Your task to perform on an android device: What's the news in theFalkland Islands? Image 0: 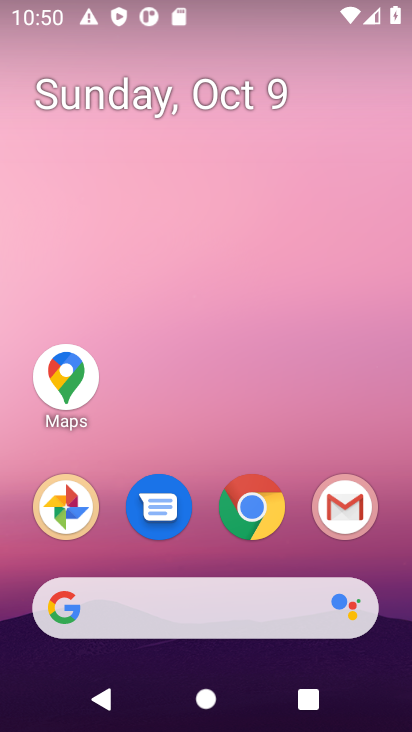
Step 0: press home button
Your task to perform on an android device: What's the news in theFalkland Islands? Image 1: 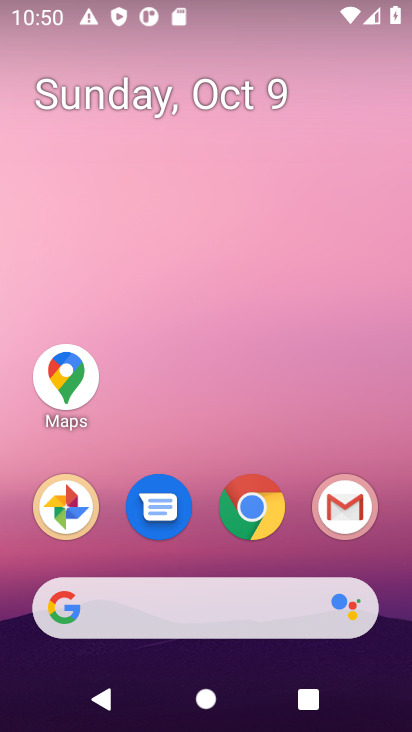
Step 1: click (243, 606)
Your task to perform on an android device: What's the news in theFalkland Islands? Image 2: 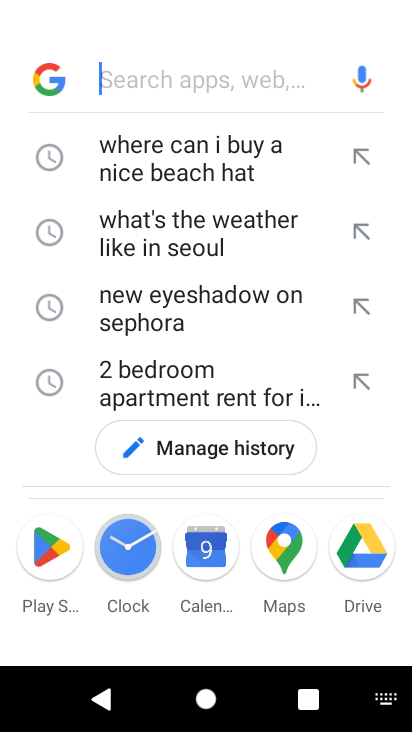
Step 2: press enter
Your task to perform on an android device: What's the news in theFalkland Islands? Image 3: 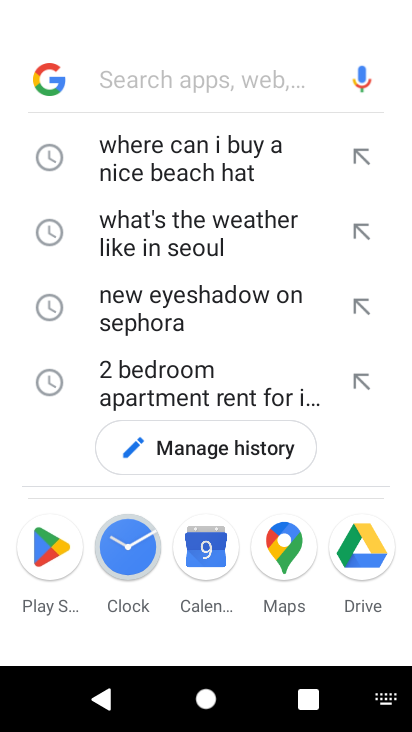
Step 3: type "What's the news in theFalkland Islands"
Your task to perform on an android device: What's the news in theFalkland Islands? Image 4: 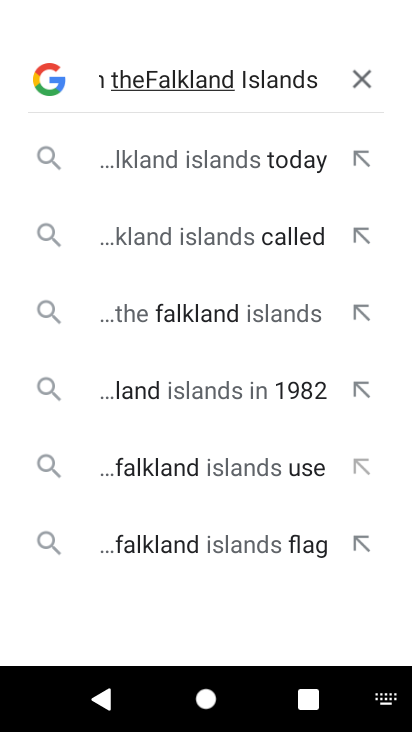
Step 4: press enter
Your task to perform on an android device: What's the news in theFalkland Islands? Image 5: 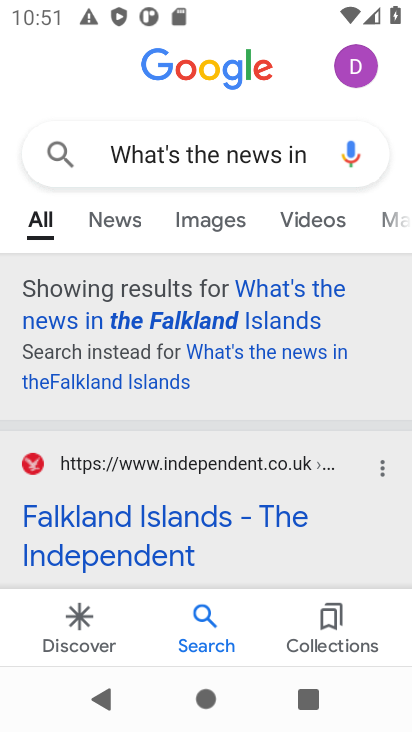
Step 5: drag from (237, 547) to (241, 281)
Your task to perform on an android device: What's the news in theFalkland Islands? Image 6: 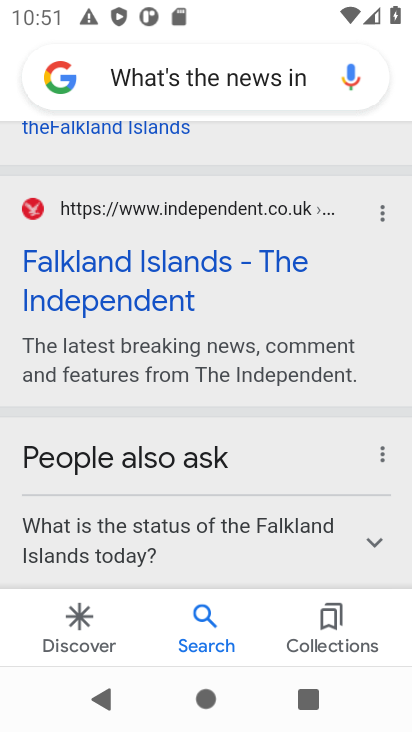
Step 6: click (173, 289)
Your task to perform on an android device: What's the news in theFalkland Islands? Image 7: 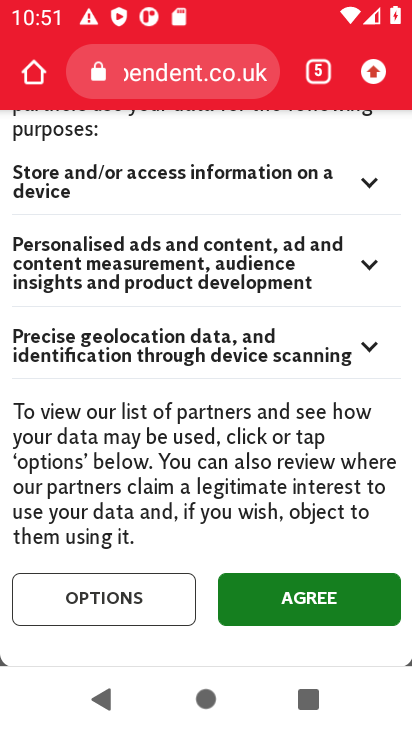
Step 7: click (304, 593)
Your task to perform on an android device: What's the news in theFalkland Islands? Image 8: 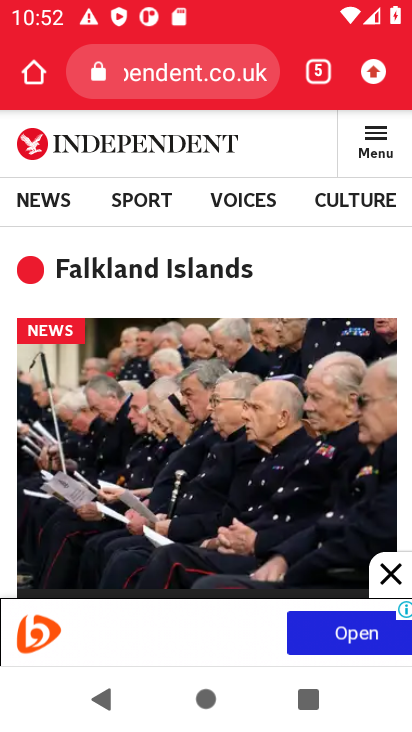
Step 8: task complete